Your task to perform on an android device: Open Yahoo.com Image 0: 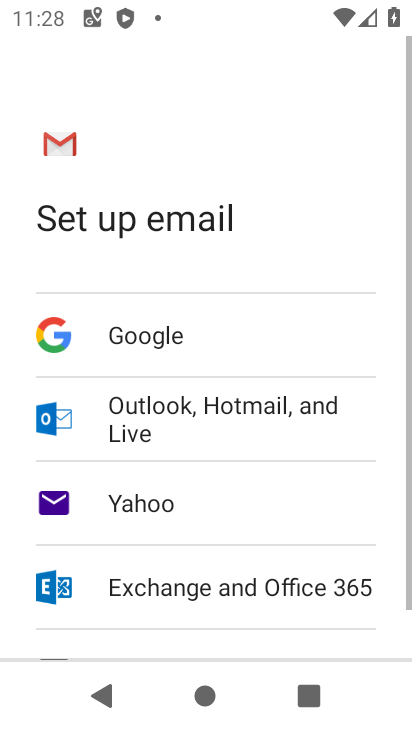
Step 0: press home button
Your task to perform on an android device: Open Yahoo.com Image 1: 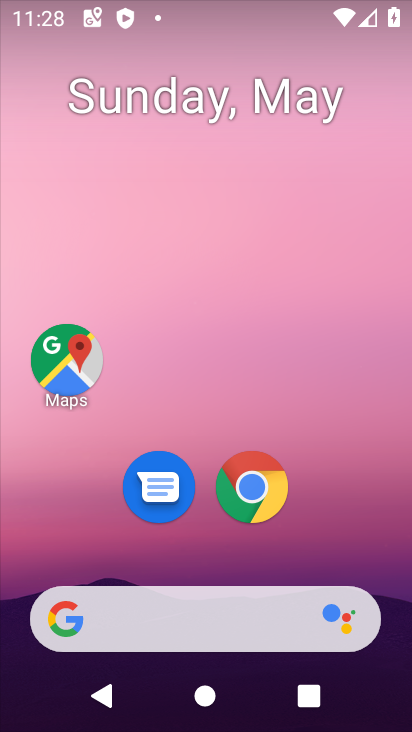
Step 1: drag from (370, 559) to (370, 121)
Your task to perform on an android device: Open Yahoo.com Image 2: 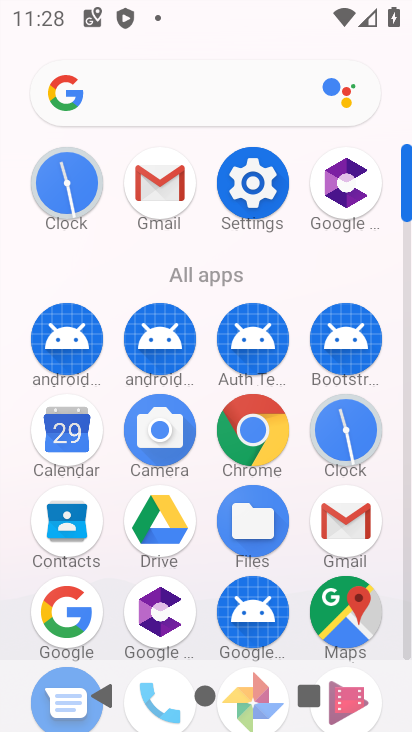
Step 2: click (266, 429)
Your task to perform on an android device: Open Yahoo.com Image 3: 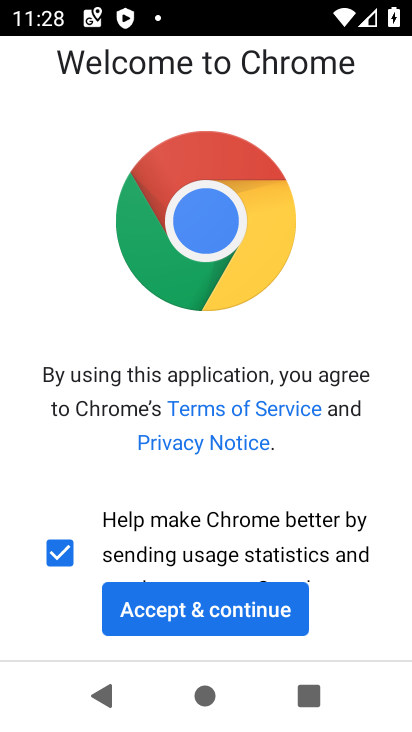
Step 3: click (263, 613)
Your task to perform on an android device: Open Yahoo.com Image 4: 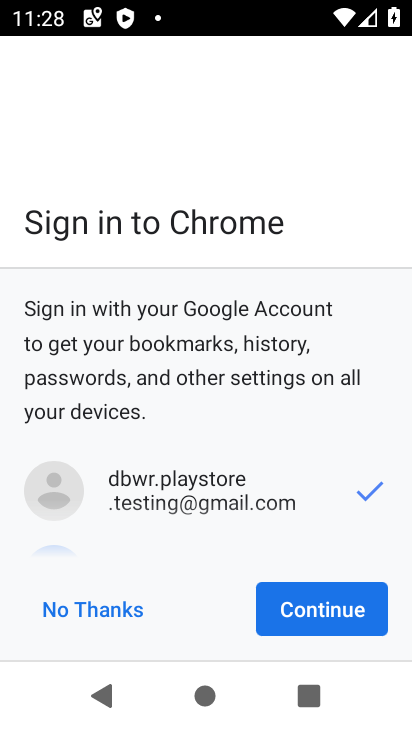
Step 4: click (263, 613)
Your task to perform on an android device: Open Yahoo.com Image 5: 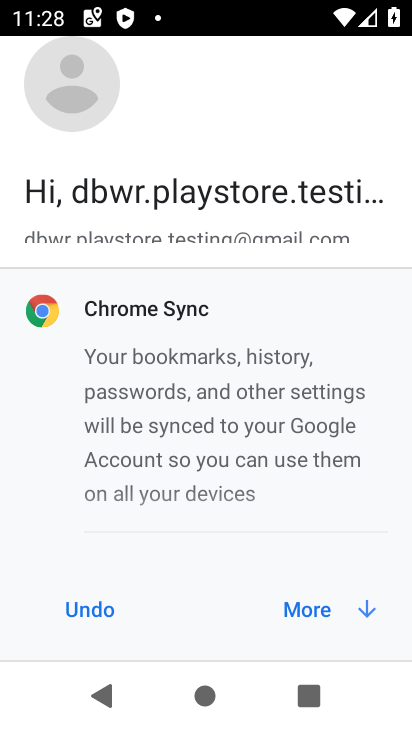
Step 5: click (286, 609)
Your task to perform on an android device: Open Yahoo.com Image 6: 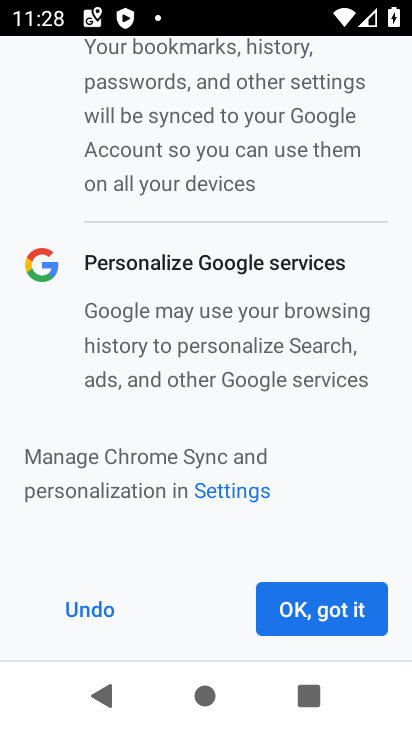
Step 6: click (287, 609)
Your task to perform on an android device: Open Yahoo.com Image 7: 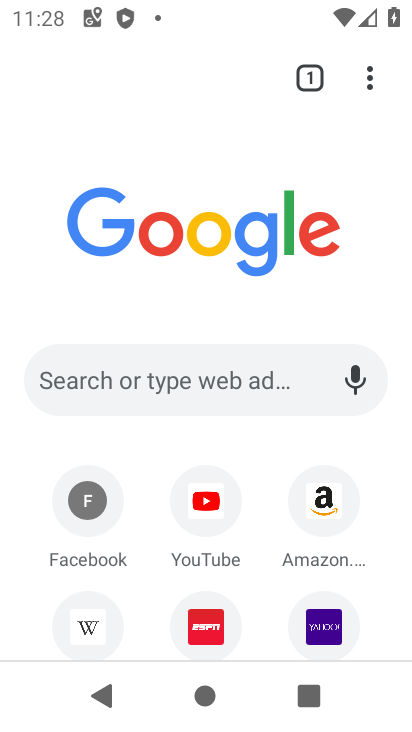
Step 7: click (242, 380)
Your task to perform on an android device: Open Yahoo.com Image 8: 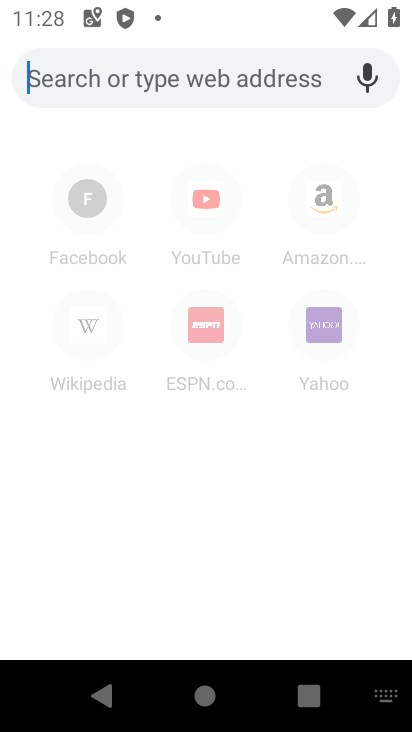
Step 8: type "yahoo.com"
Your task to perform on an android device: Open Yahoo.com Image 9: 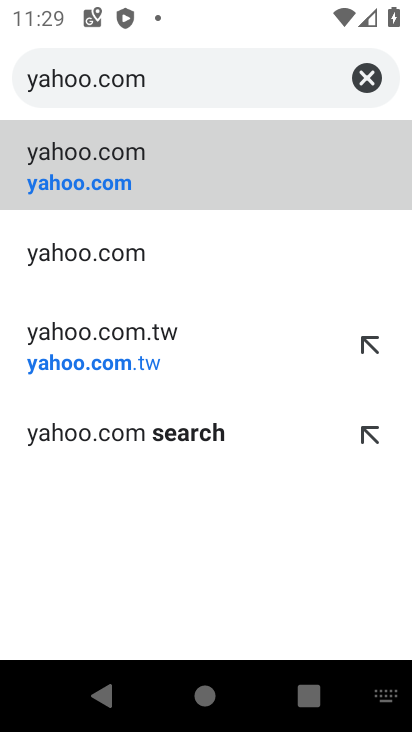
Step 9: click (152, 185)
Your task to perform on an android device: Open Yahoo.com Image 10: 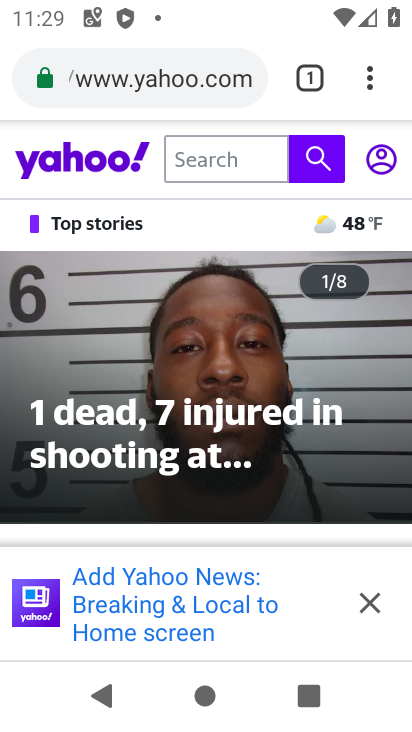
Step 10: task complete